Your task to perform on an android device: toggle notification dots Image 0: 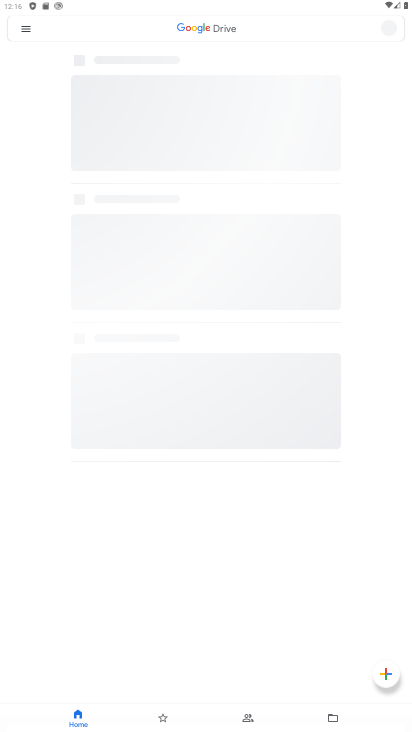
Step 0: press home button
Your task to perform on an android device: toggle notification dots Image 1: 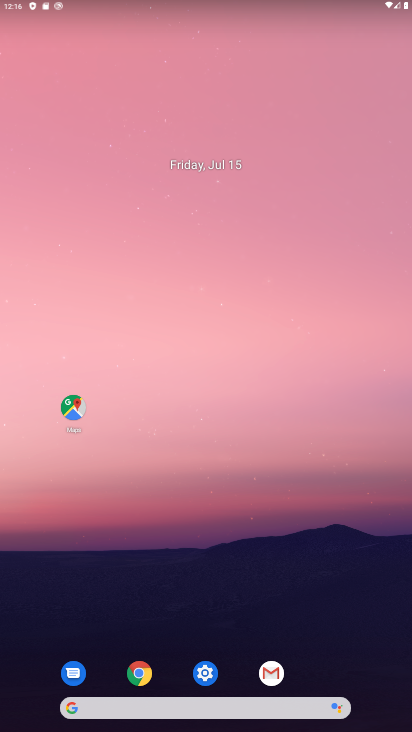
Step 1: click (208, 672)
Your task to perform on an android device: toggle notification dots Image 2: 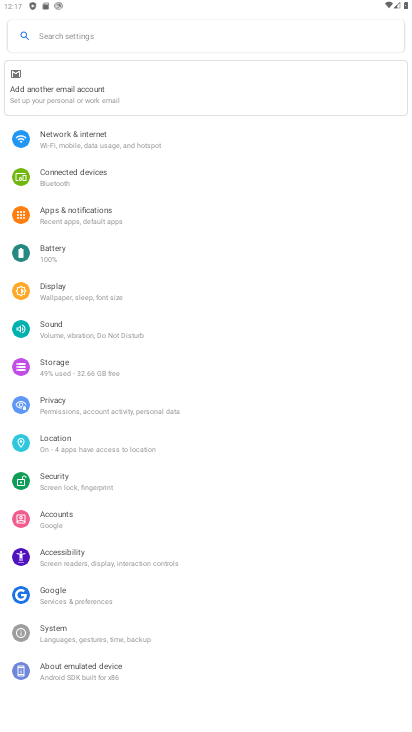
Step 2: click (68, 40)
Your task to perform on an android device: toggle notification dots Image 3: 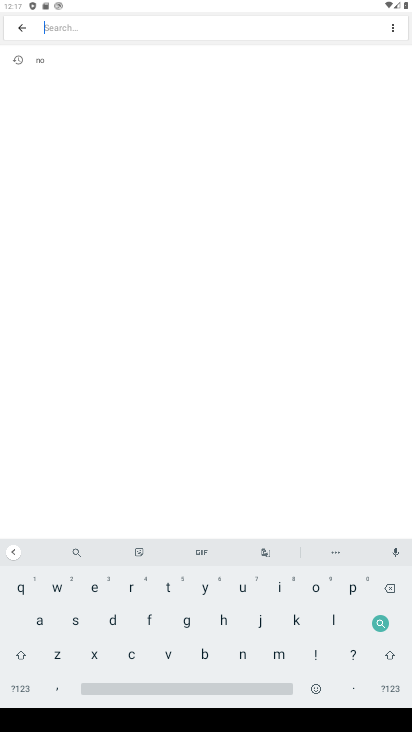
Step 3: click (60, 64)
Your task to perform on an android device: toggle notification dots Image 4: 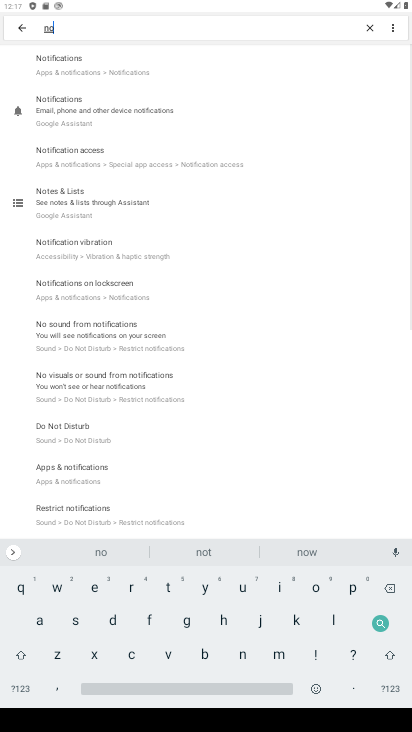
Step 4: click (83, 67)
Your task to perform on an android device: toggle notification dots Image 5: 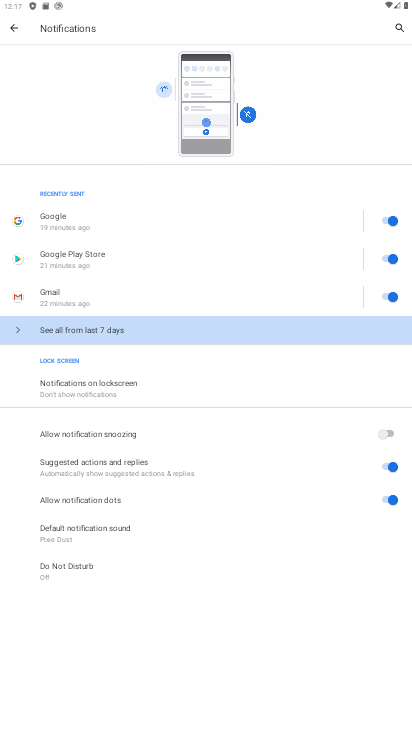
Step 5: click (286, 498)
Your task to perform on an android device: toggle notification dots Image 6: 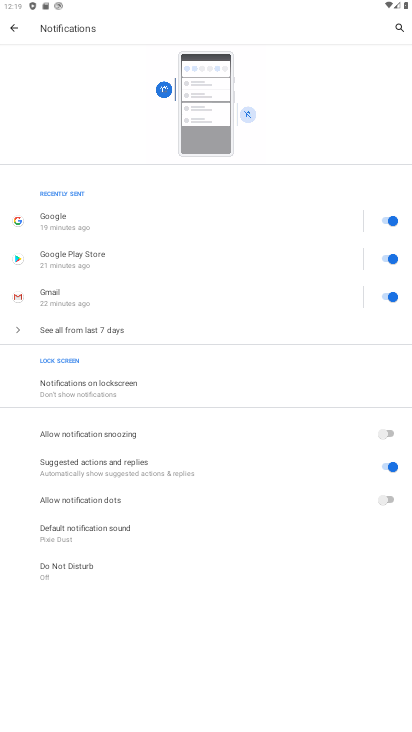
Step 6: task complete